Your task to perform on an android device: toggle sleep mode Image 0: 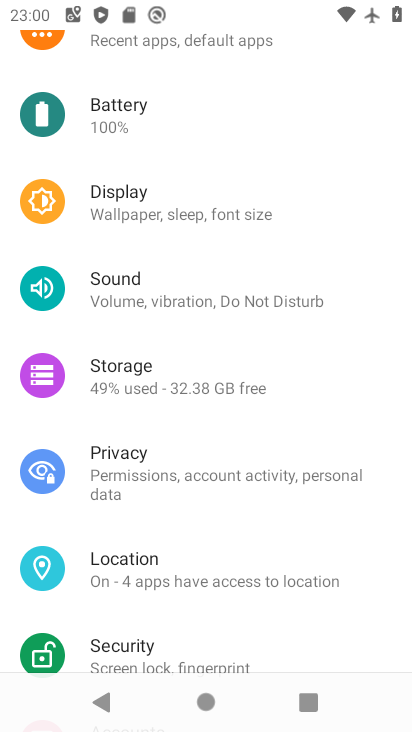
Step 0: click (222, 227)
Your task to perform on an android device: toggle sleep mode Image 1: 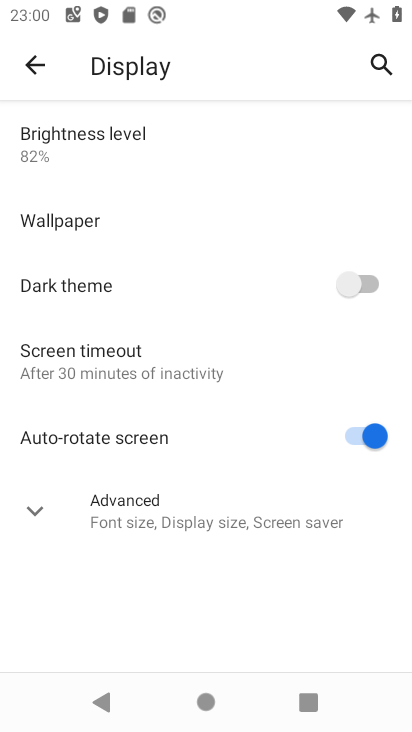
Step 1: click (200, 376)
Your task to perform on an android device: toggle sleep mode Image 2: 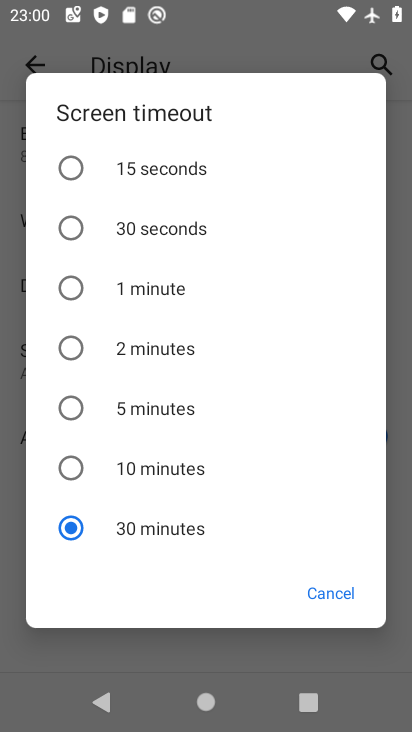
Step 2: click (200, 375)
Your task to perform on an android device: toggle sleep mode Image 3: 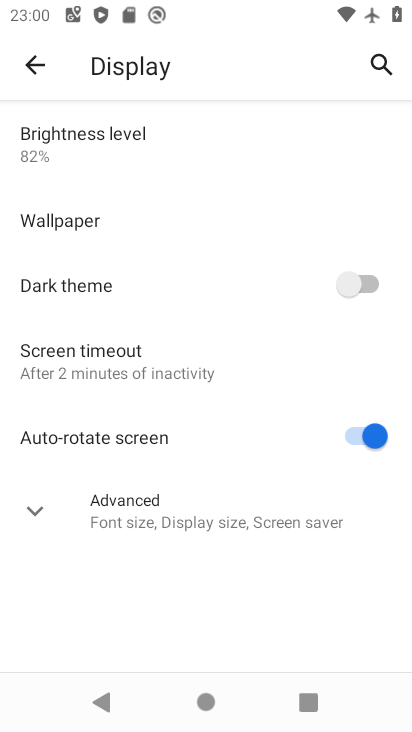
Step 3: click (200, 375)
Your task to perform on an android device: toggle sleep mode Image 4: 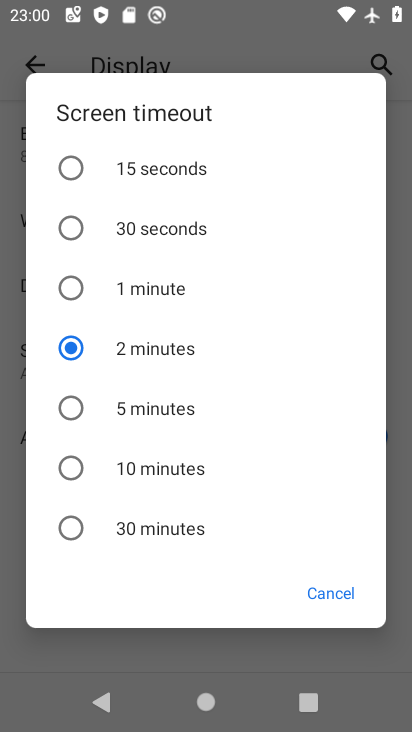
Step 4: task complete